Your task to perform on an android device: Clear all items from cart on ebay.com. Search for jbl flip 4 on ebay.com, select the first entry, add it to the cart, then select checkout. Image 0: 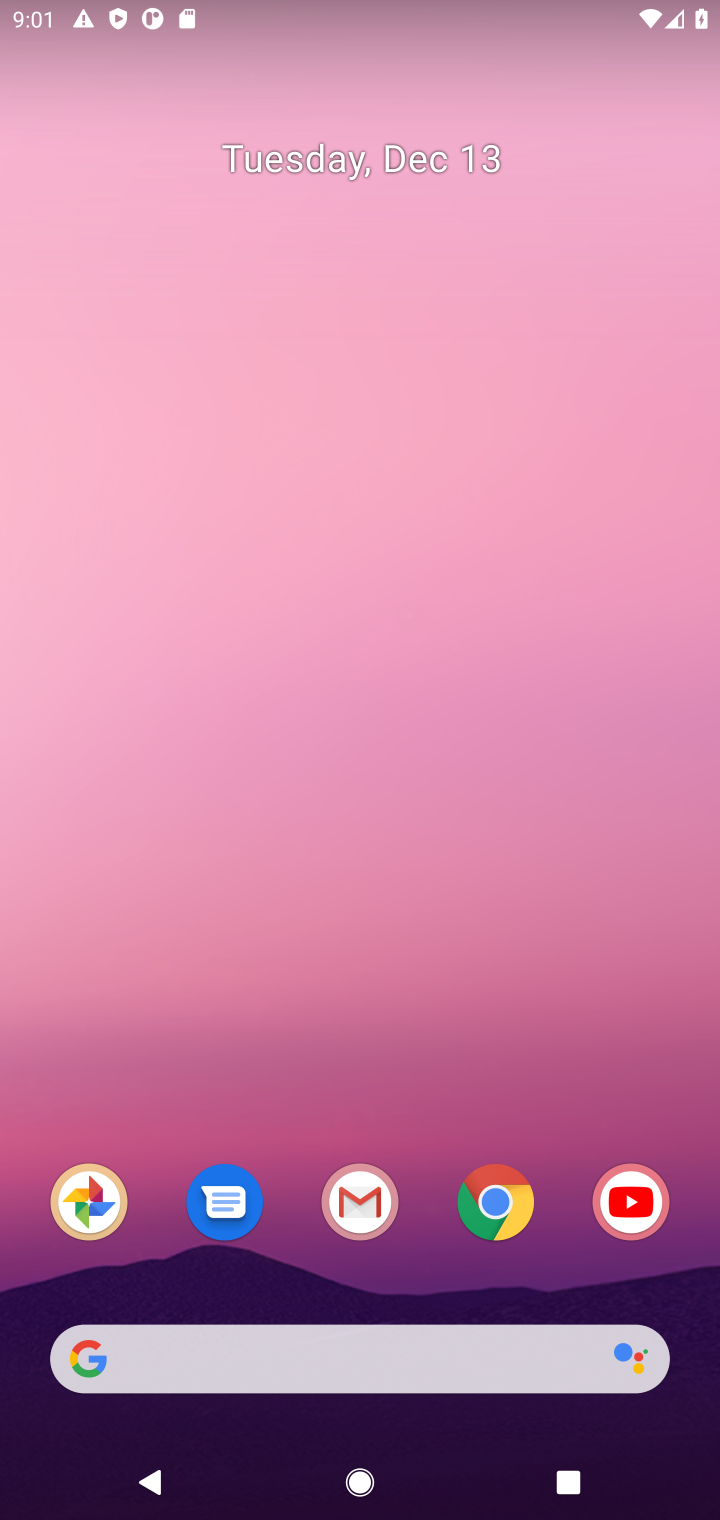
Step 0: click (501, 1208)
Your task to perform on an android device: Clear all items from cart on ebay.com. Search for jbl flip 4 on ebay.com, select the first entry, add it to the cart, then select checkout. Image 1: 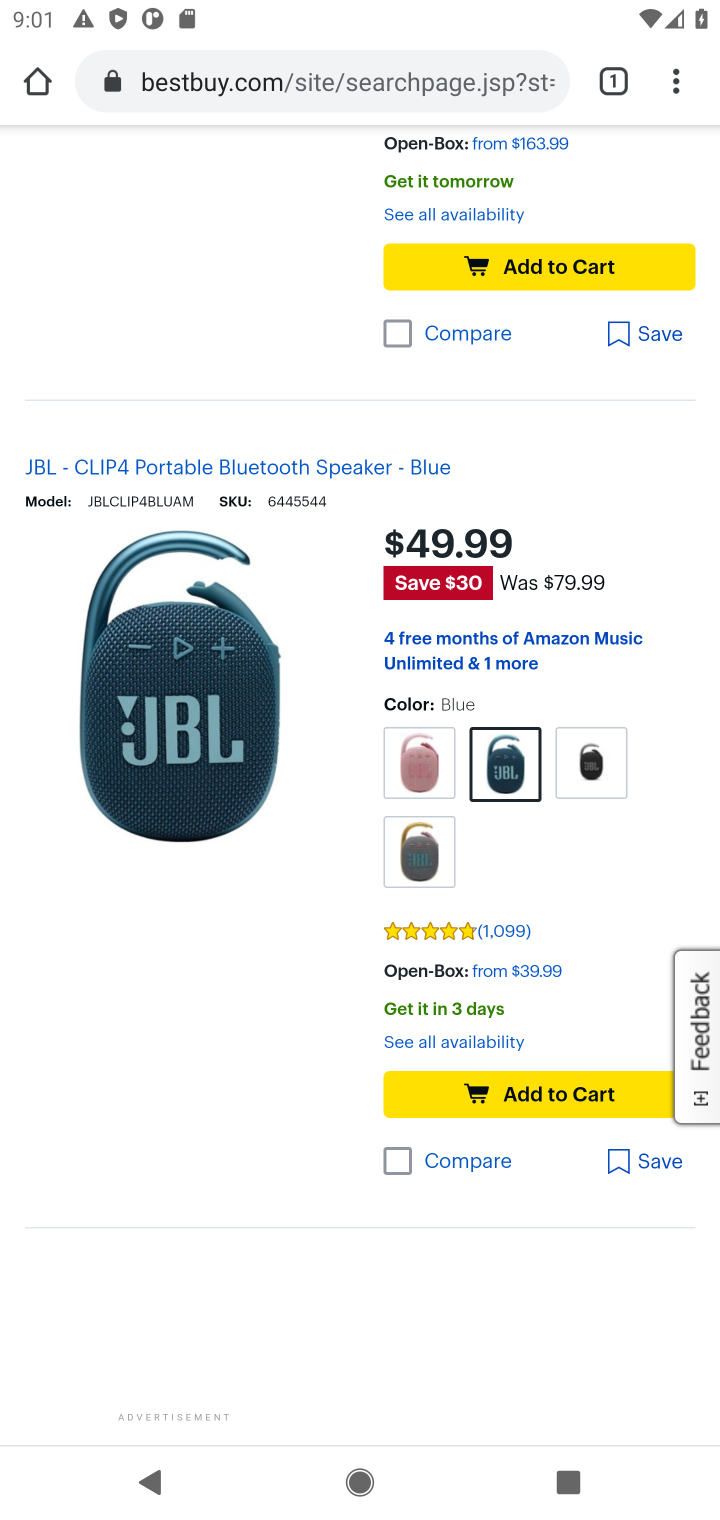
Step 1: click (253, 83)
Your task to perform on an android device: Clear all items from cart on ebay.com. Search for jbl flip 4 on ebay.com, select the first entry, add it to the cart, then select checkout. Image 2: 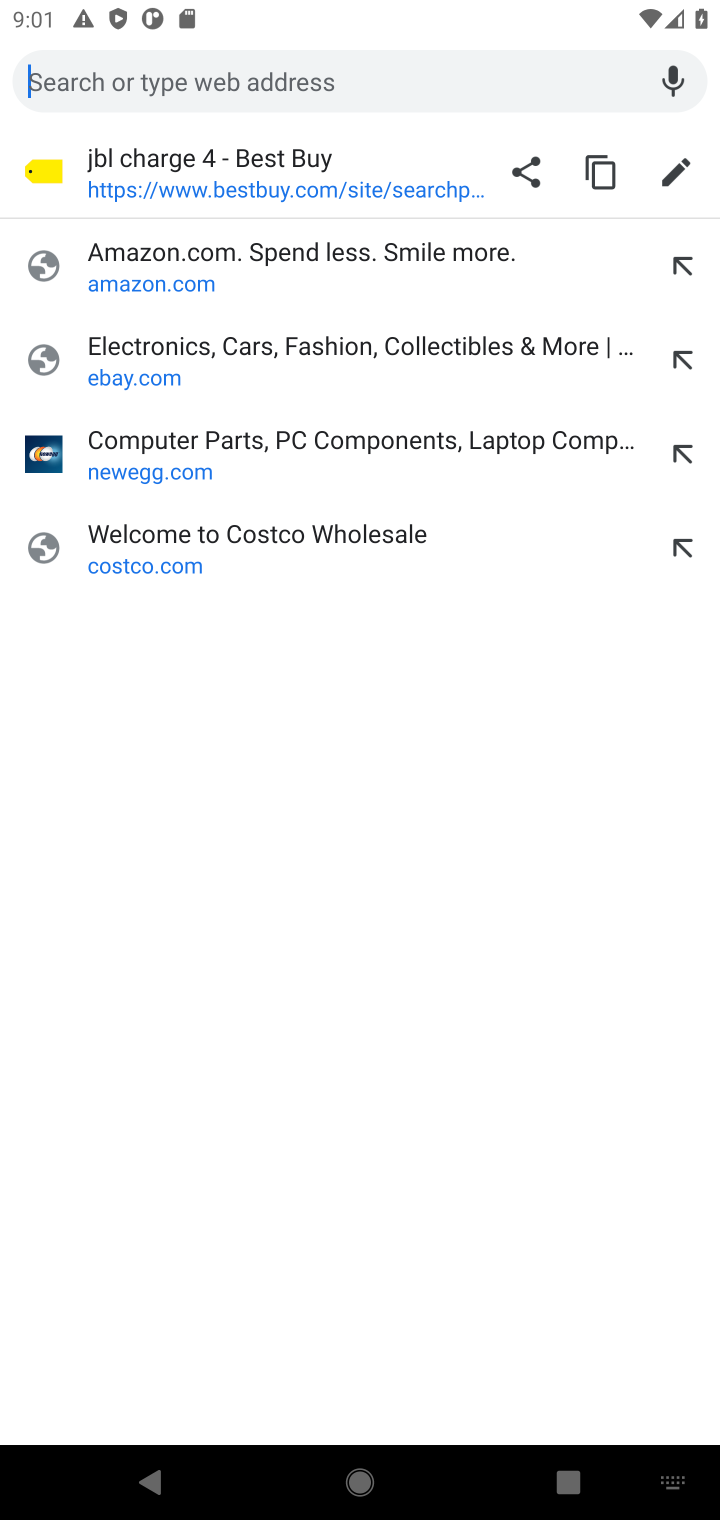
Step 2: click (124, 362)
Your task to perform on an android device: Clear all items from cart on ebay.com. Search for jbl flip 4 on ebay.com, select the first entry, add it to the cart, then select checkout. Image 3: 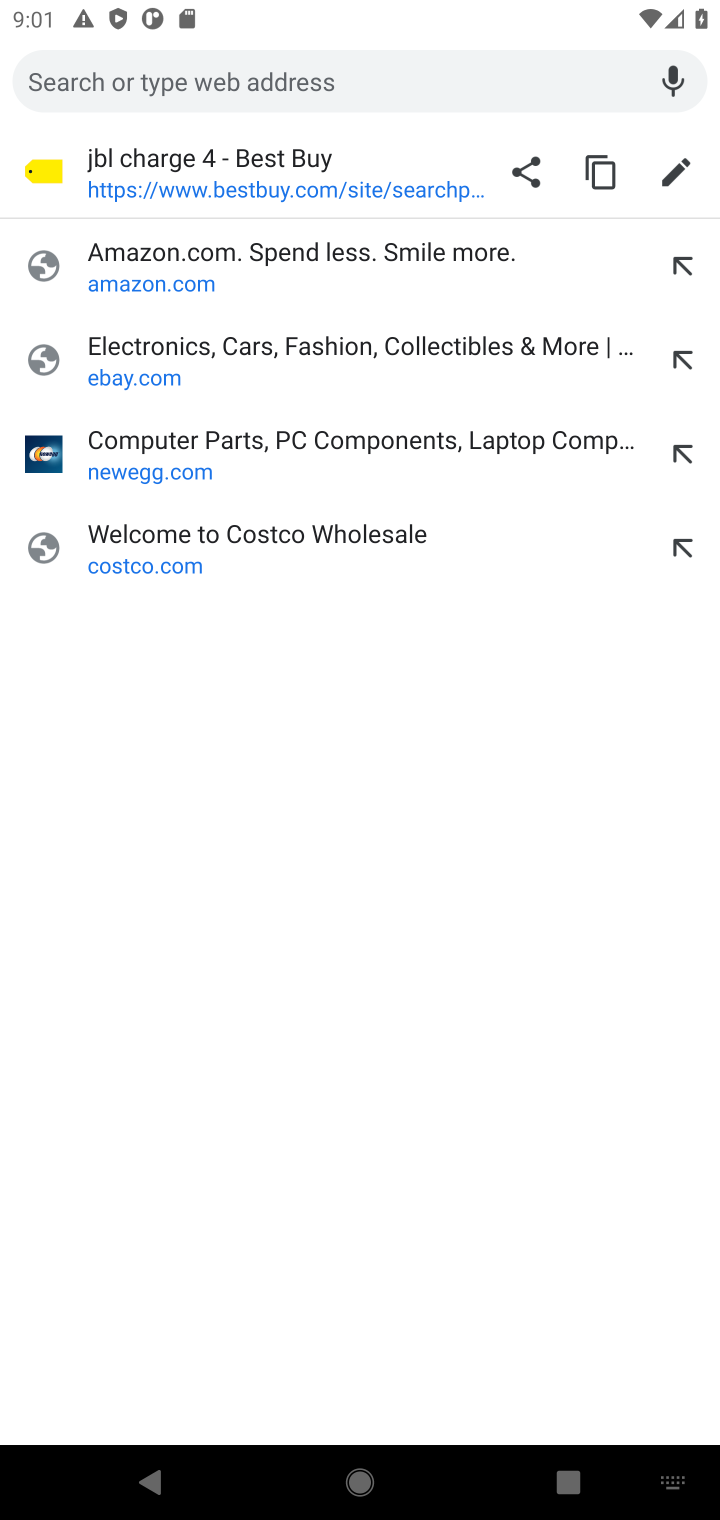
Step 3: click (124, 370)
Your task to perform on an android device: Clear all items from cart on ebay.com. Search for jbl flip 4 on ebay.com, select the first entry, add it to the cart, then select checkout. Image 4: 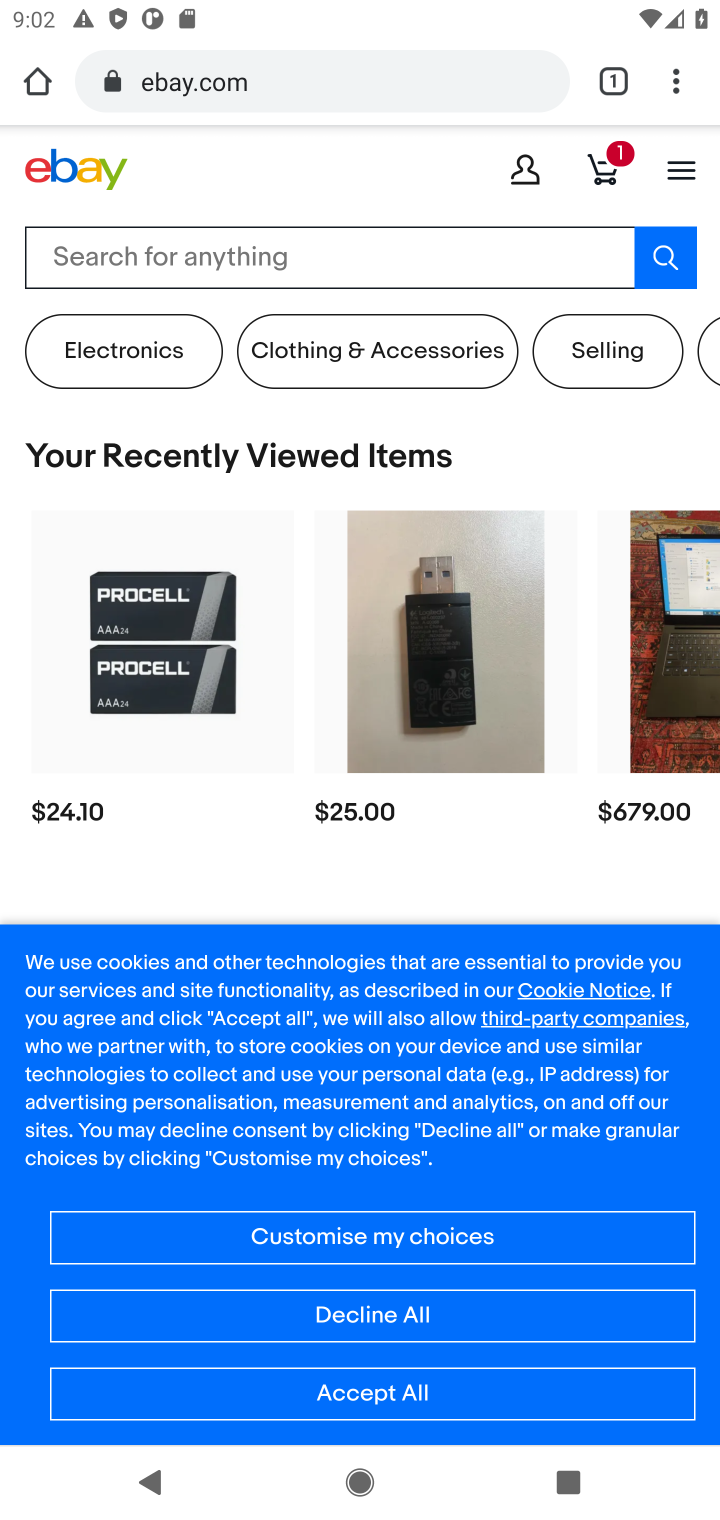
Step 4: click (595, 157)
Your task to perform on an android device: Clear all items from cart on ebay.com. Search for jbl flip 4 on ebay.com, select the first entry, add it to the cart, then select checkout. Image 5: 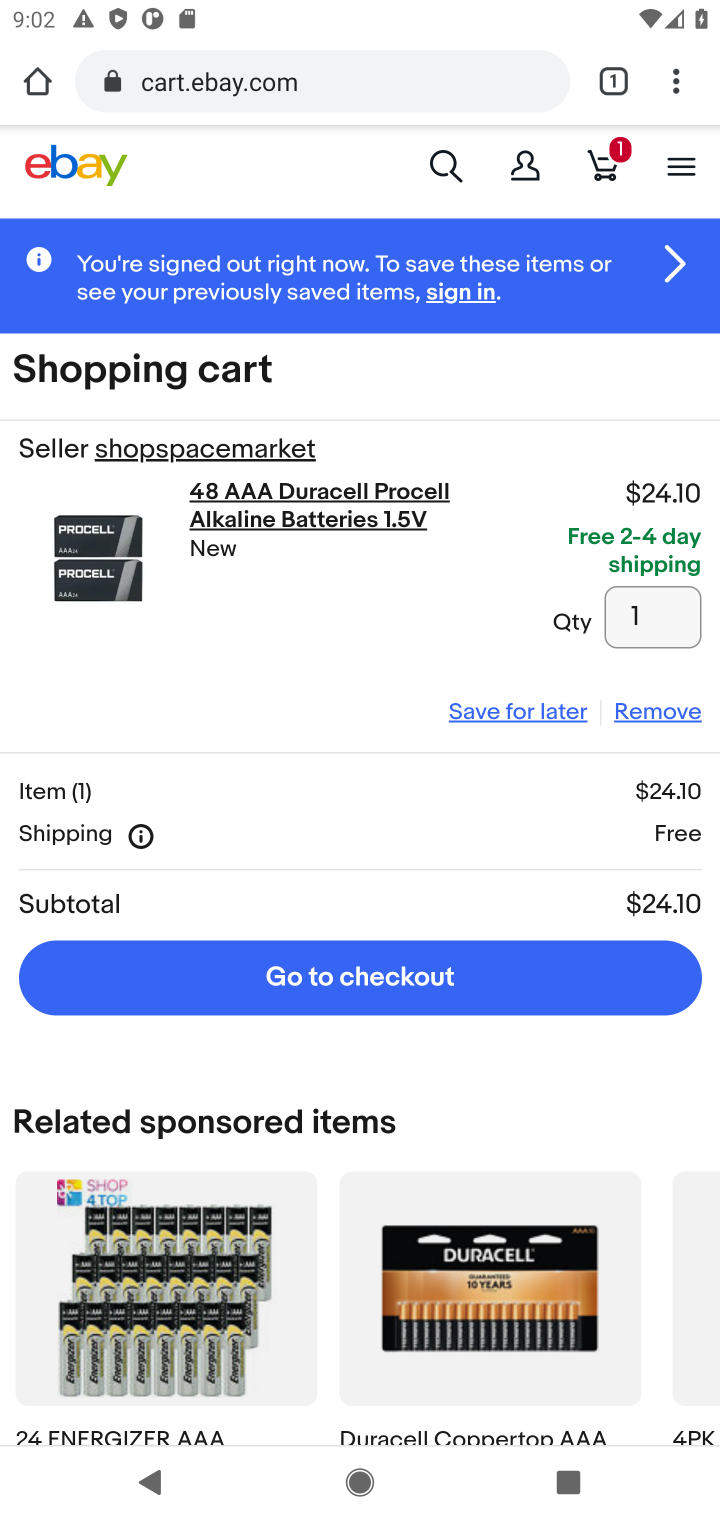
Step 5: click (672, 718)
Your task to perform on an android device: Clear all items from cart on ebay.com. Search for jbl flip 4 on ebay.com, select the first entry, add it to the cart, then select checkout. Image 6: 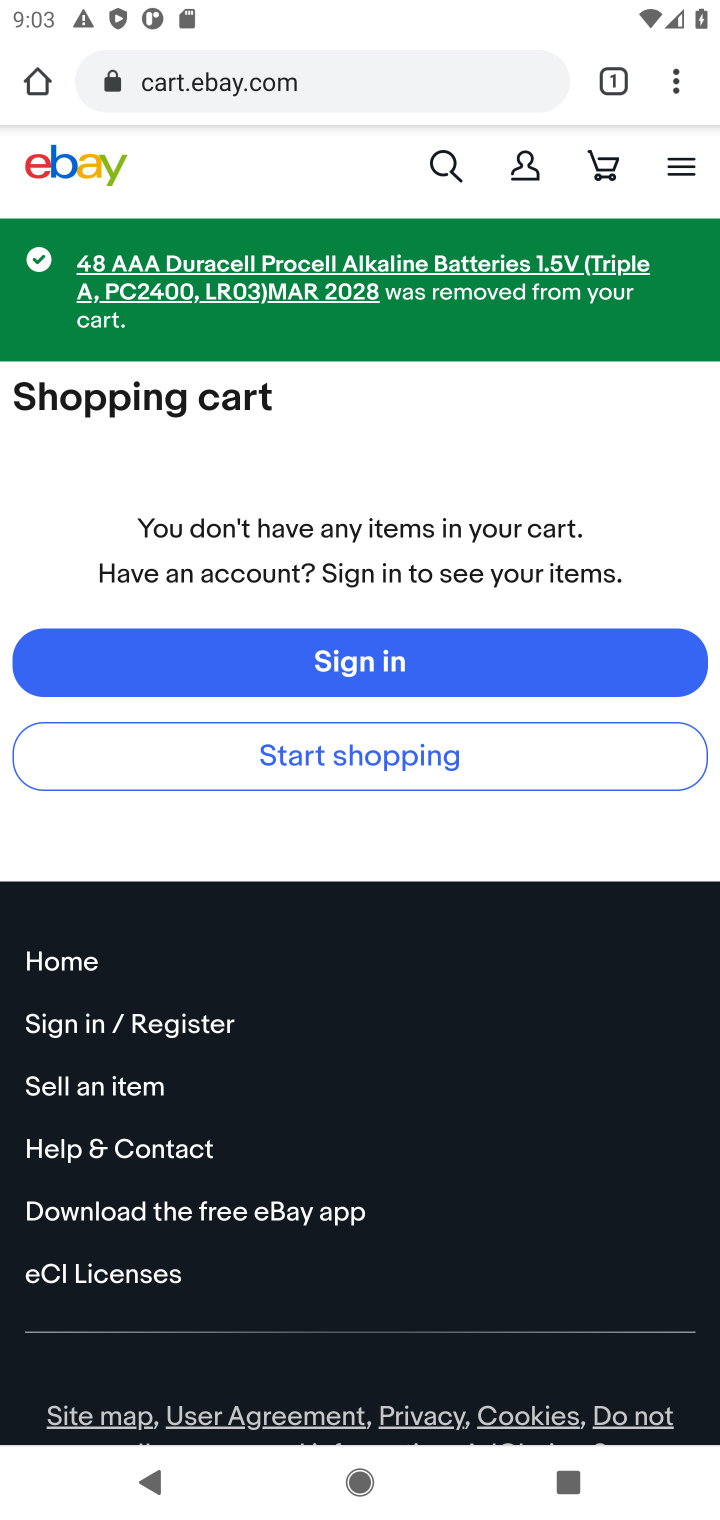
Step 6: click (450, 173)
Your task to perform on an android device: Clear all items from cart on ebay.com. Search for jbl flip 4 on ebay.com, select the first entry, add it to the cart, then select checkout. Image 7: 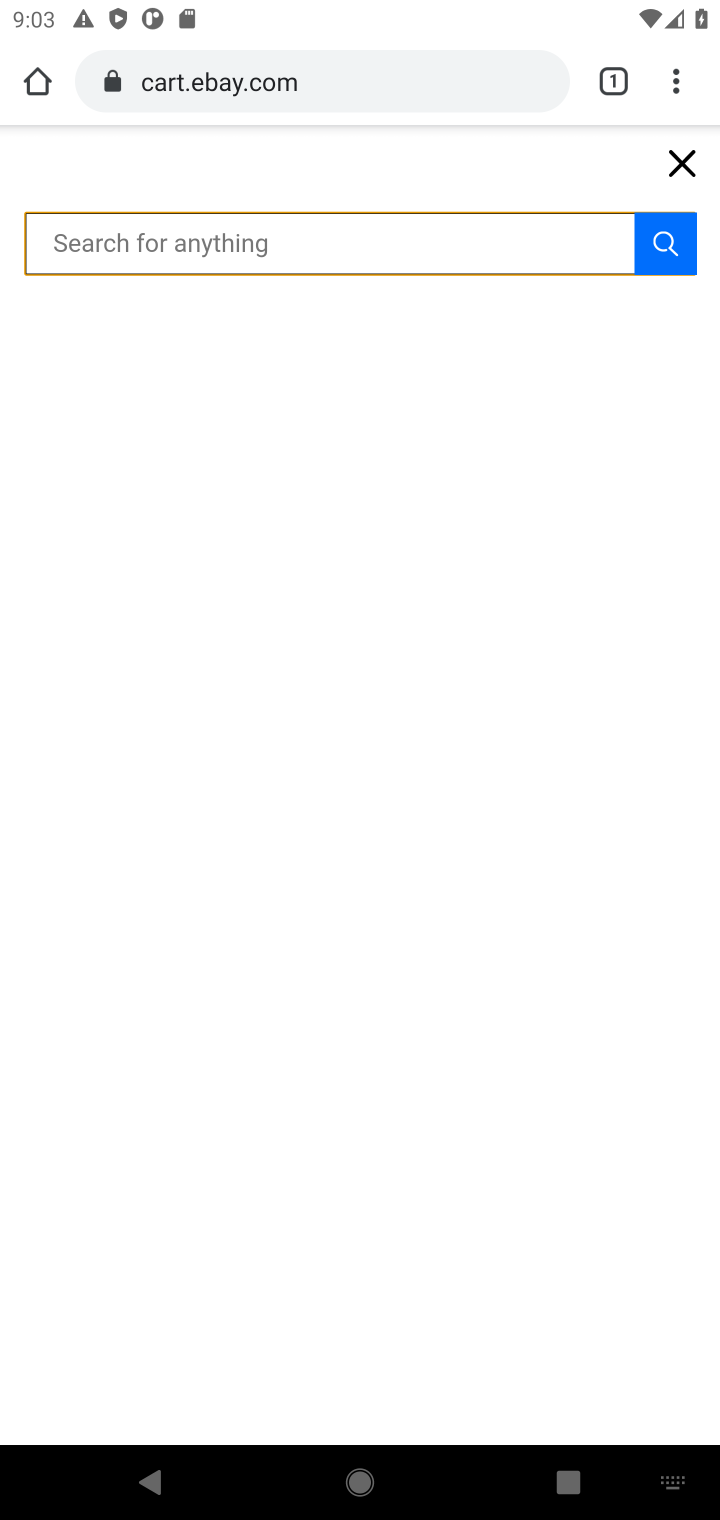
Step 7: type "jbl flip 4"
Your task to perform on an android device: Clear all items from cart on ebay.com. Search for jbl flip 4 on ebay.com, select the first entry, add it to the cart, then select checkout. Image 8: 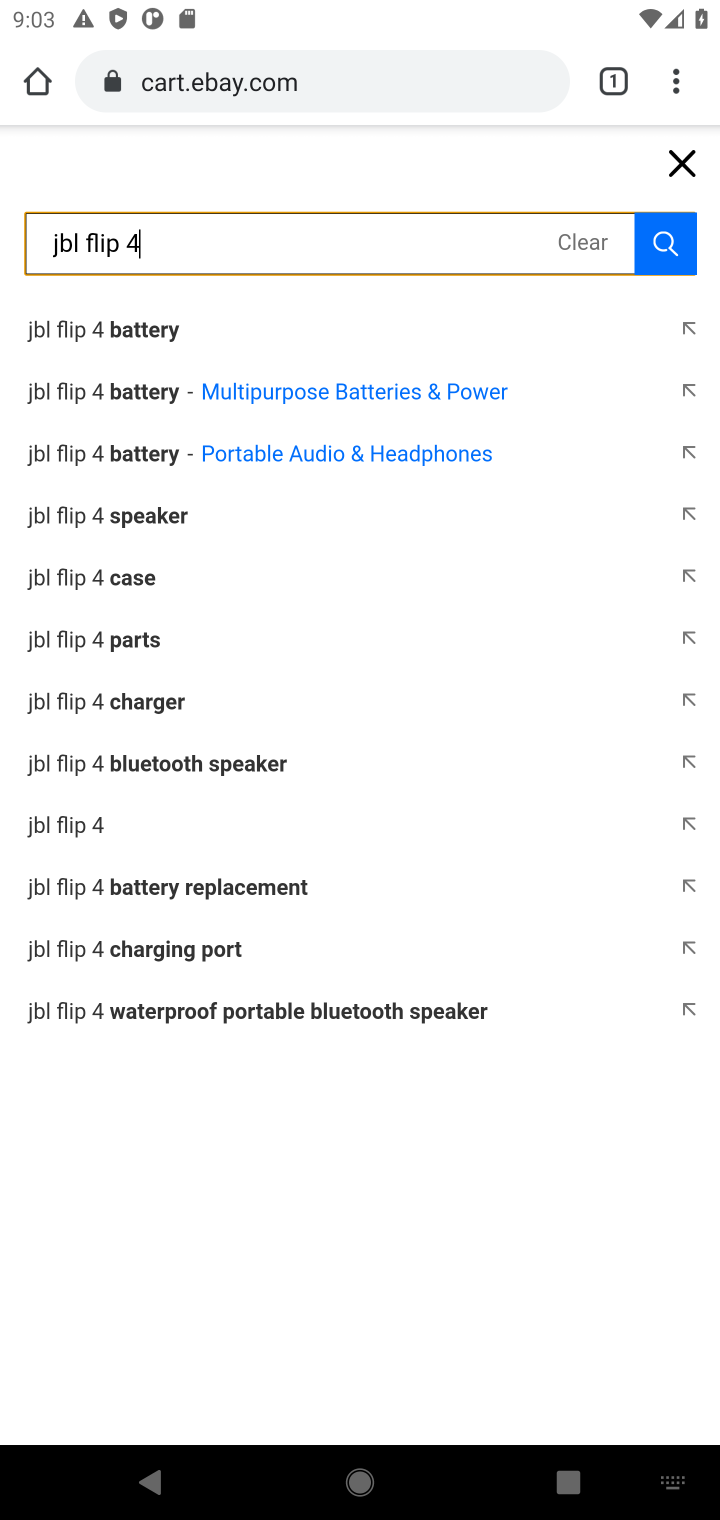
Step 8: click (658, 250)
Your task to perform on an android device: Clear all items from cart on ebay.com. Search for jbl flip 4 on ebay.com, select the first entry, add it to the cart, then select checkout. Image 9: 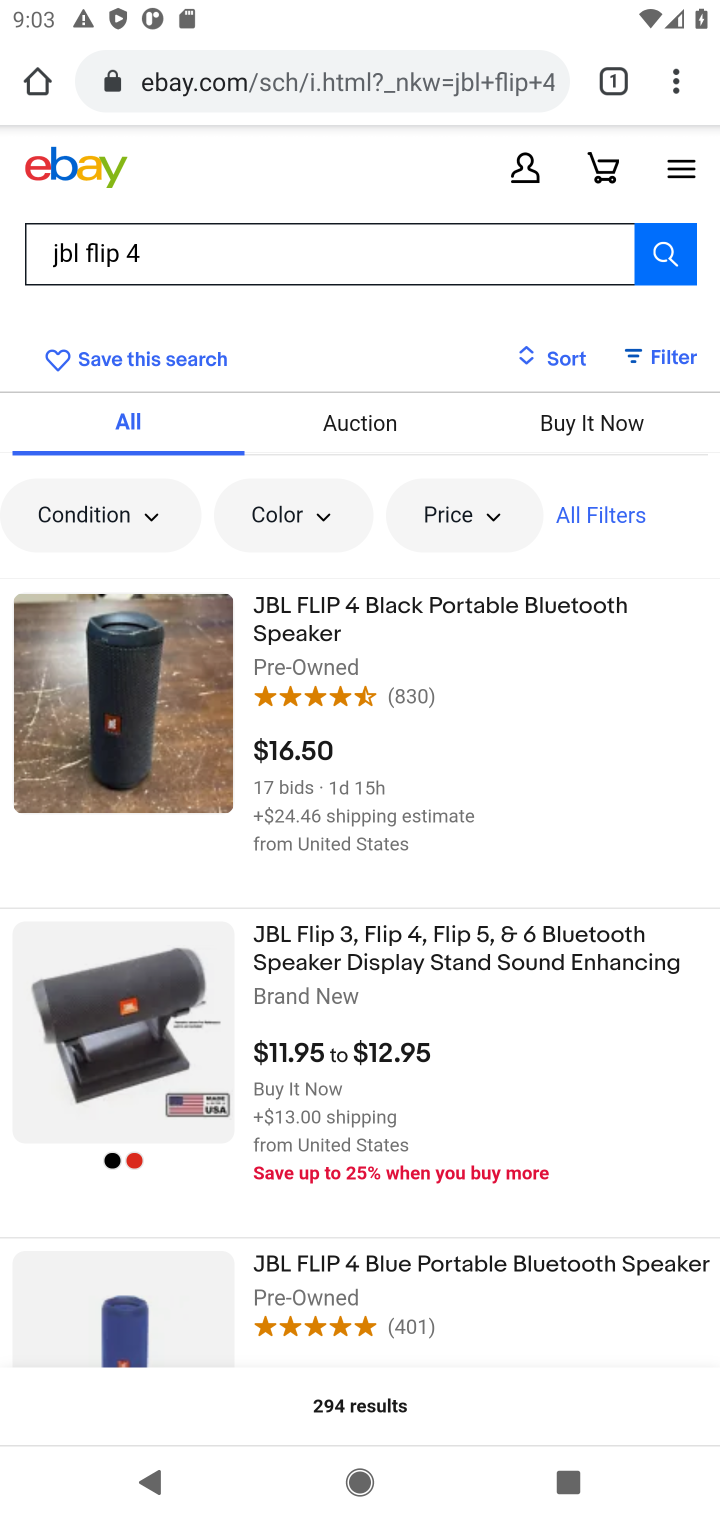
Step 9: click (269, 628)
Your task to perform on an android device: Clear all items from cart on ebay.com. Search for jbl flip 4 on ebay.com, select the first entry, add it to the cart, then select checkout. Image 10: 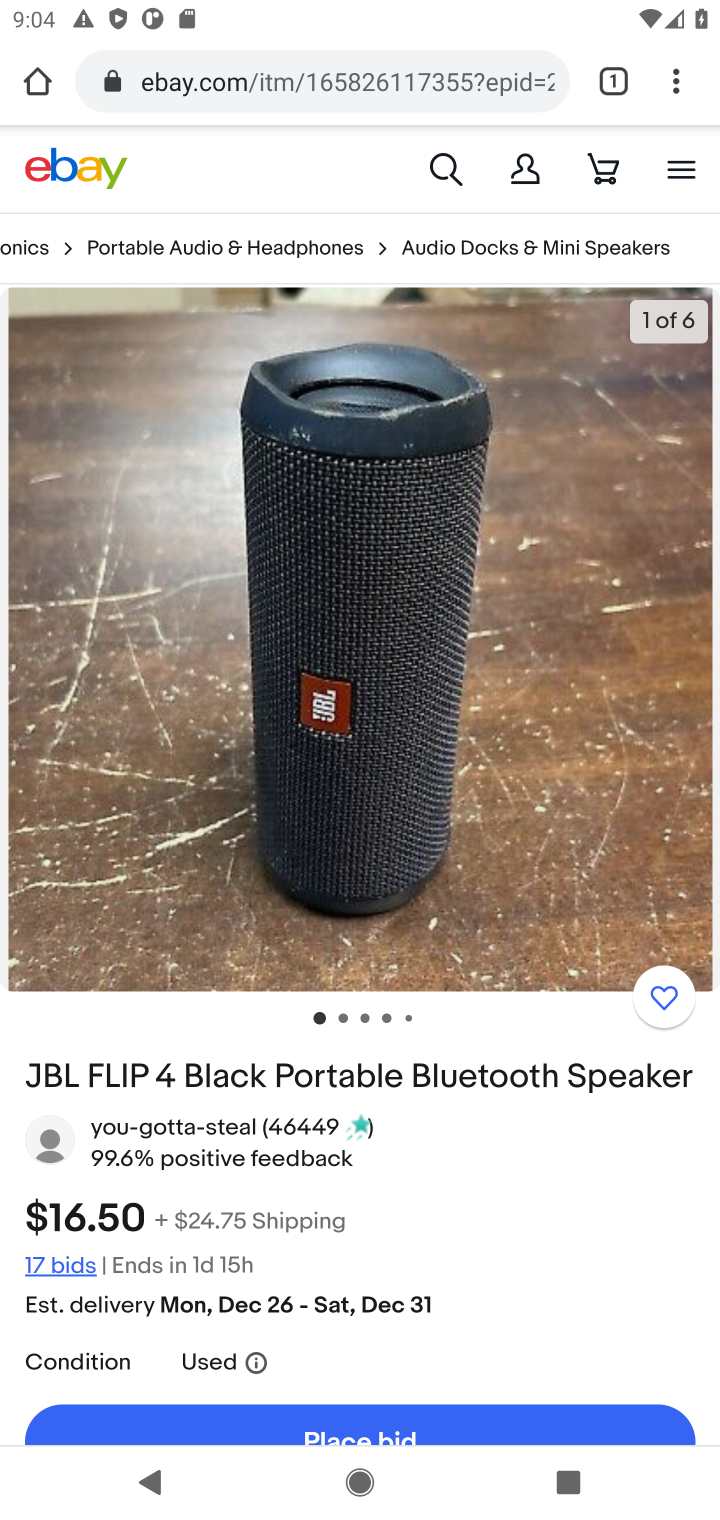
Step 10: task complete